Your task to perform on an android device: Open Google Chrome Image 0: 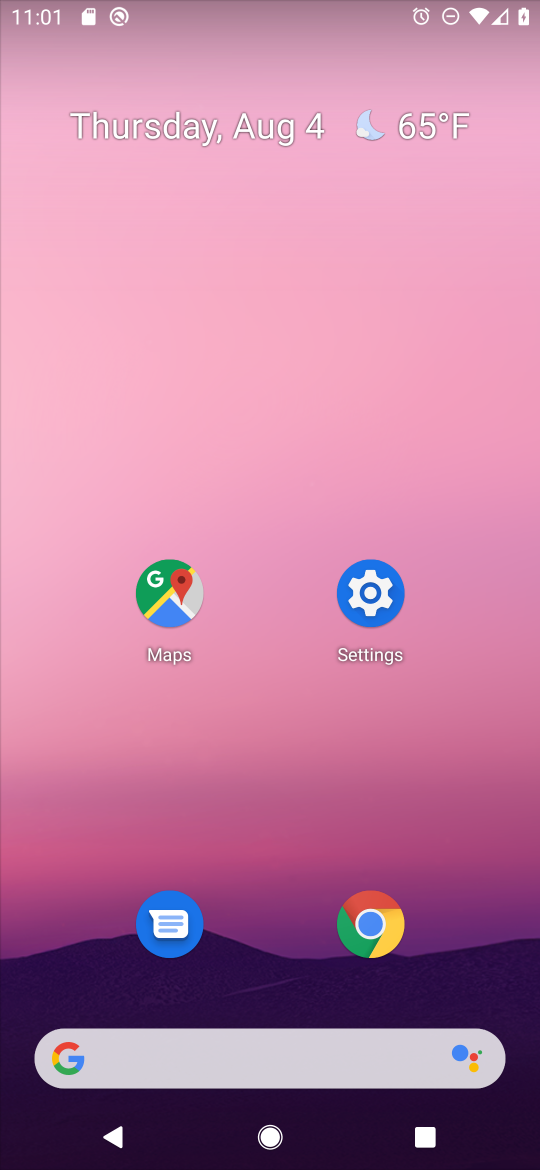
Step 0: press home button
Your task to perform on an android device: Open Google Chrome Image 1: 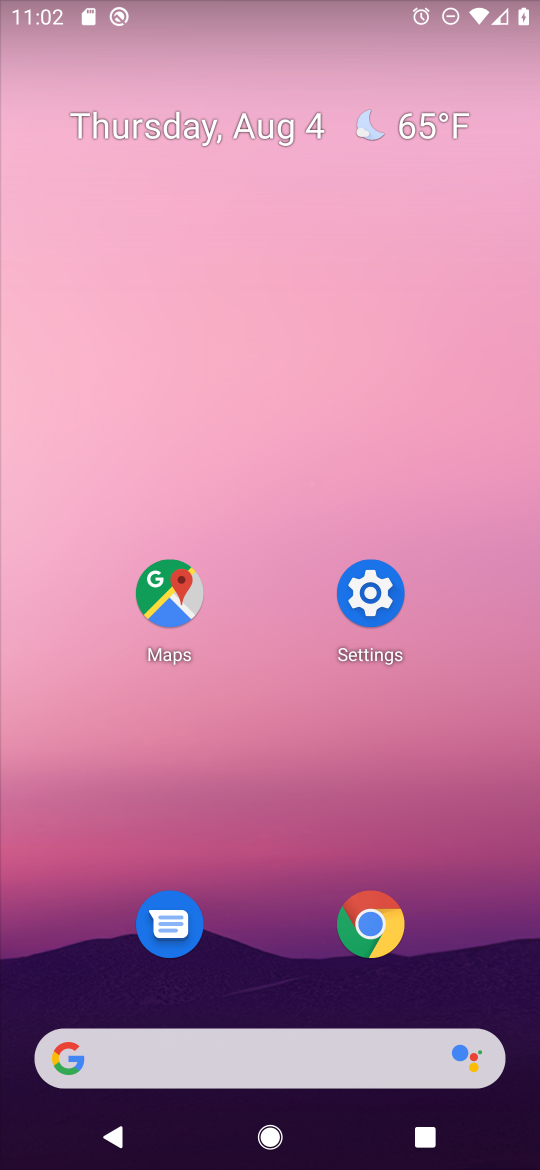
Step 1: click (377, 920)
Your task to perform on an android device: Open Google Chrome Image 2: 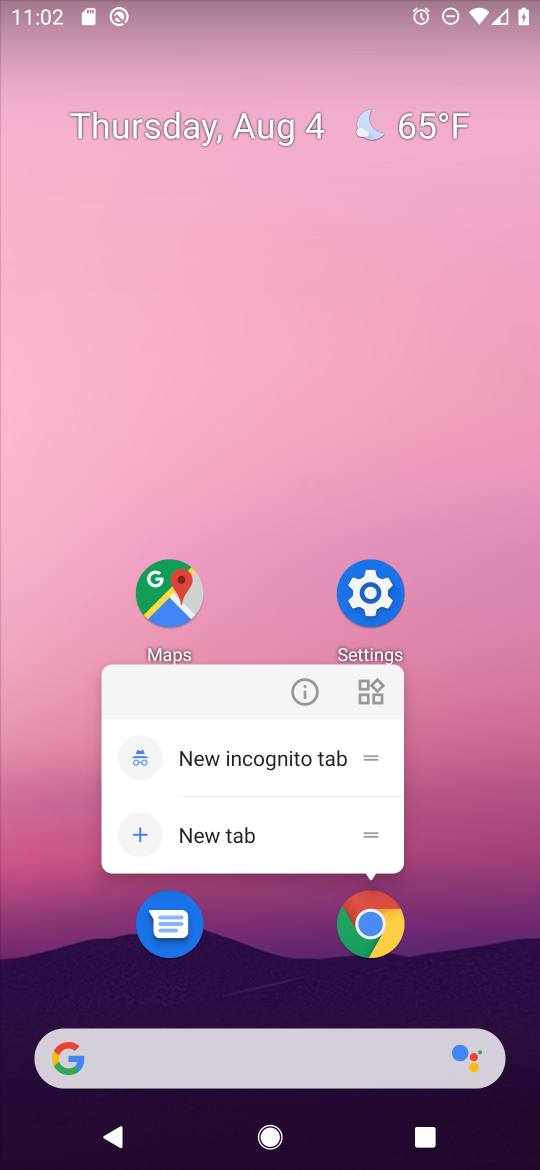
Step 2: click (372, 927)
Your task to perform on an android device: Open Google Chrome Image 3: 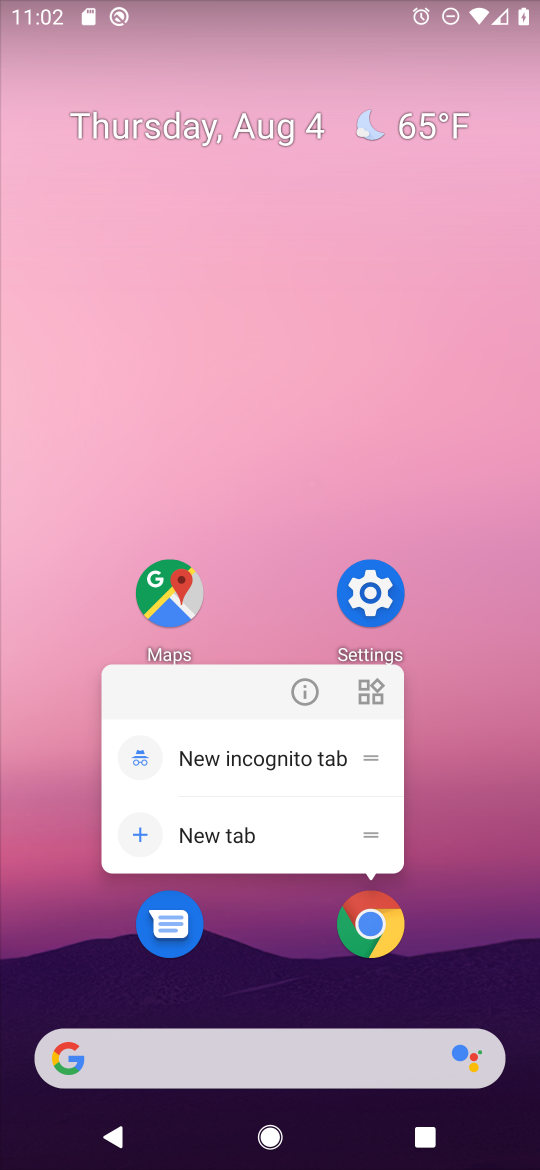
Step 3: click (372, 931)
Your task to perform on an android device: Open Google Chrome Image 4: 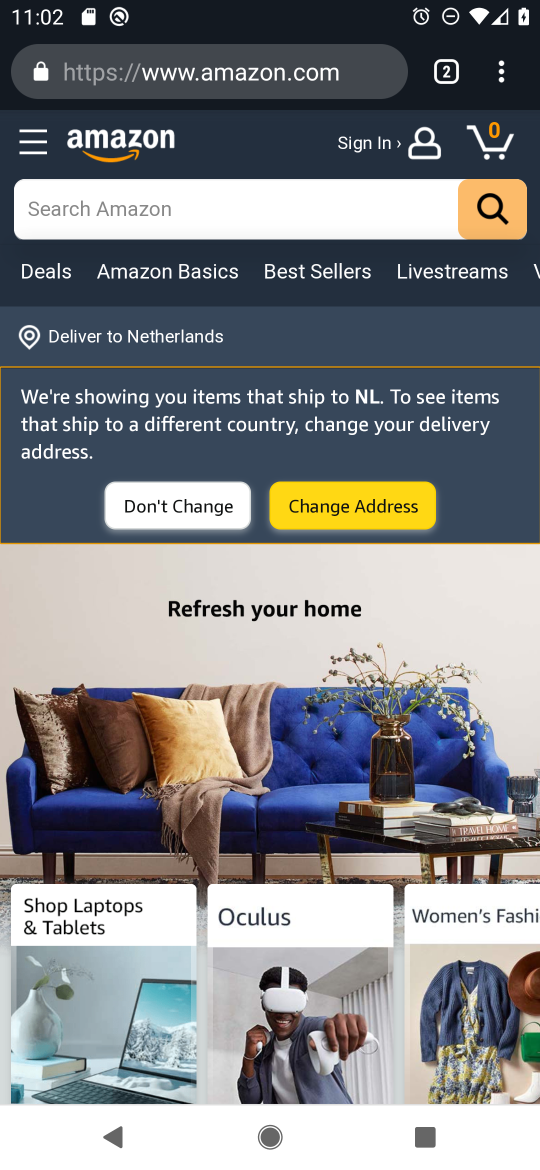
Step 4: task complete